Your task to perform on an android device: Is it going to rain tomorrow? Image 0: 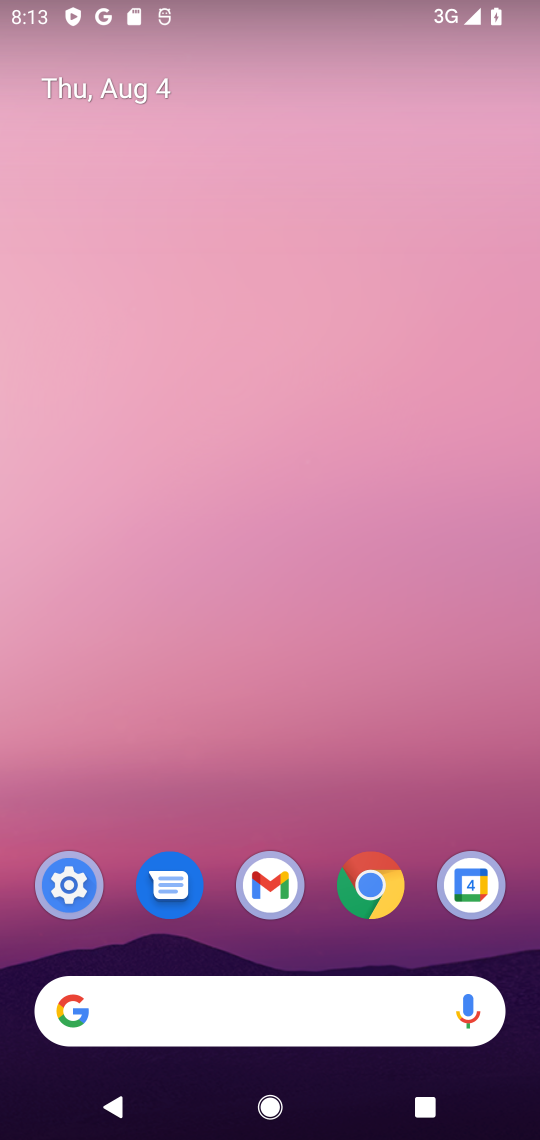
Step 0: press home button
Your task to perform on an android device: Is it going to rain tomorrow? Image 1: 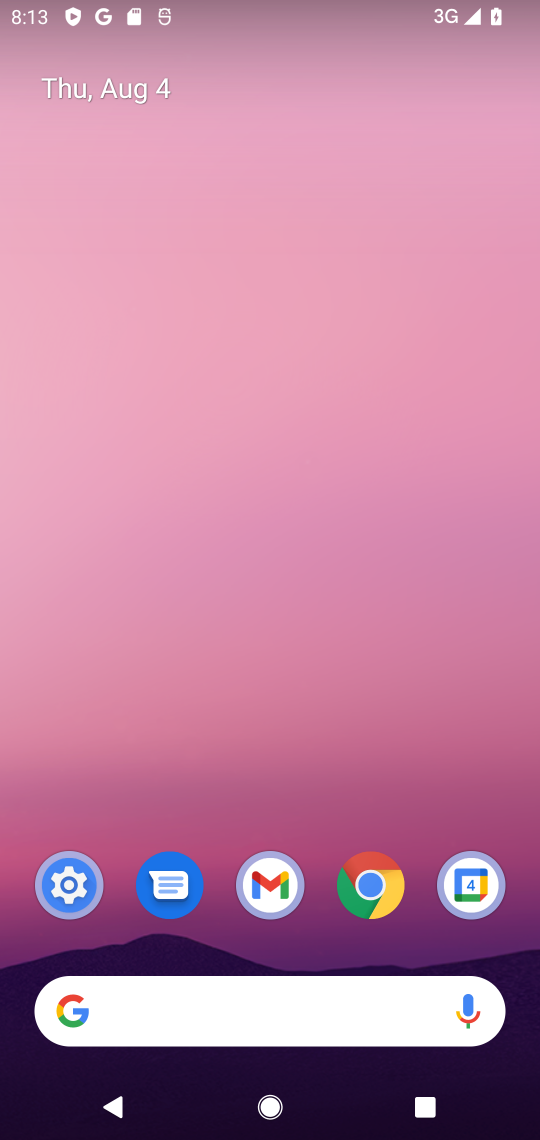
Step 1: press home button
Your task to perform on an android device: Is it going to rain tomorrow? Image 2: 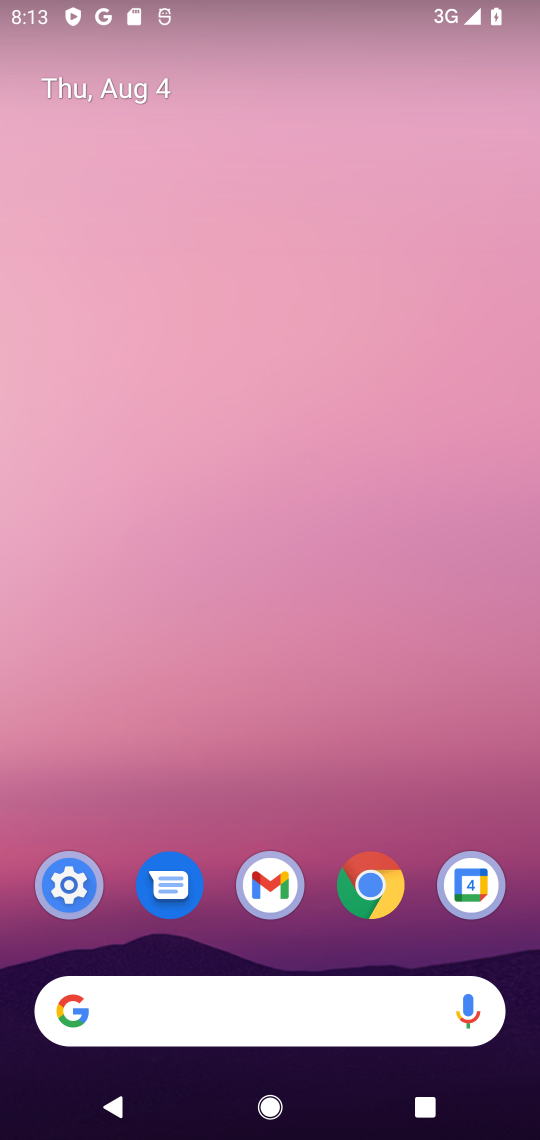
Step 2: press home button
Your task to perform on an android device: Is it going to rain tomorrow? Image 3: 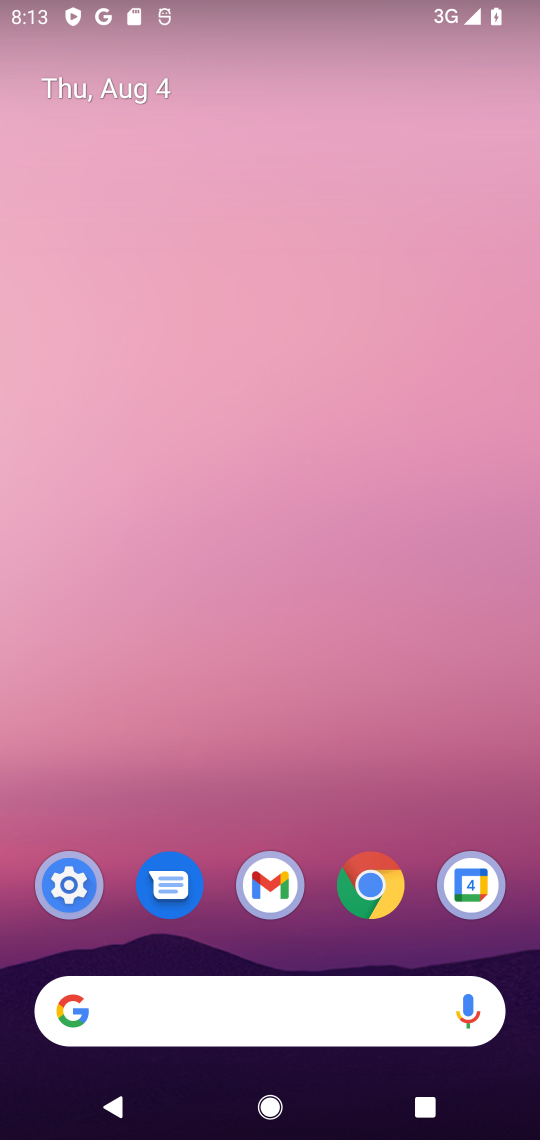
Step 3: press home button
Your task to perform on an android device: Is it going to rain tomorrow? Image 4: 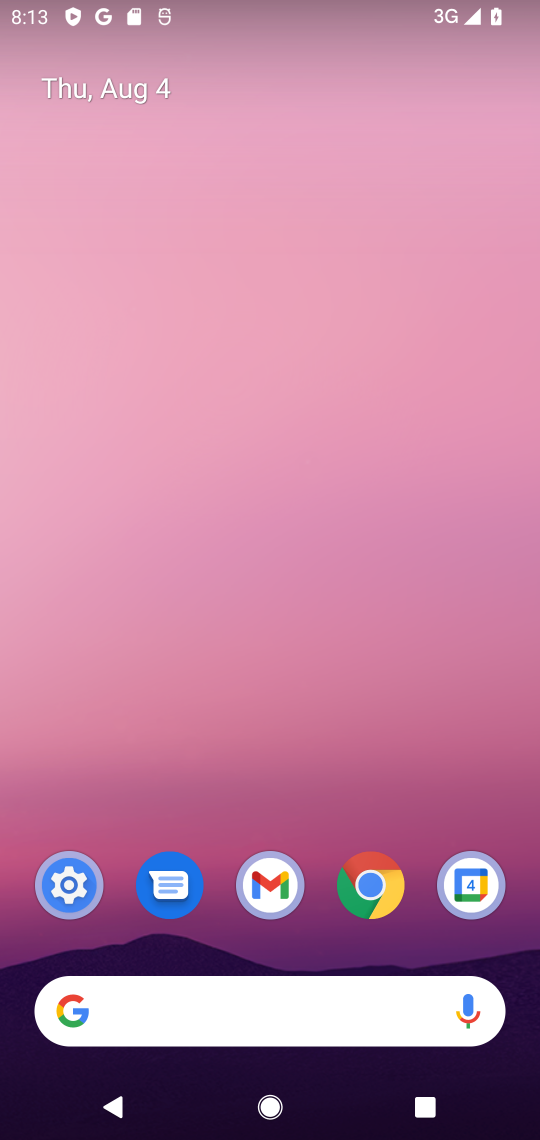
Step 4: press home button
Your task to perform on an android device: Is it going to rain tomorrow? Image 5: 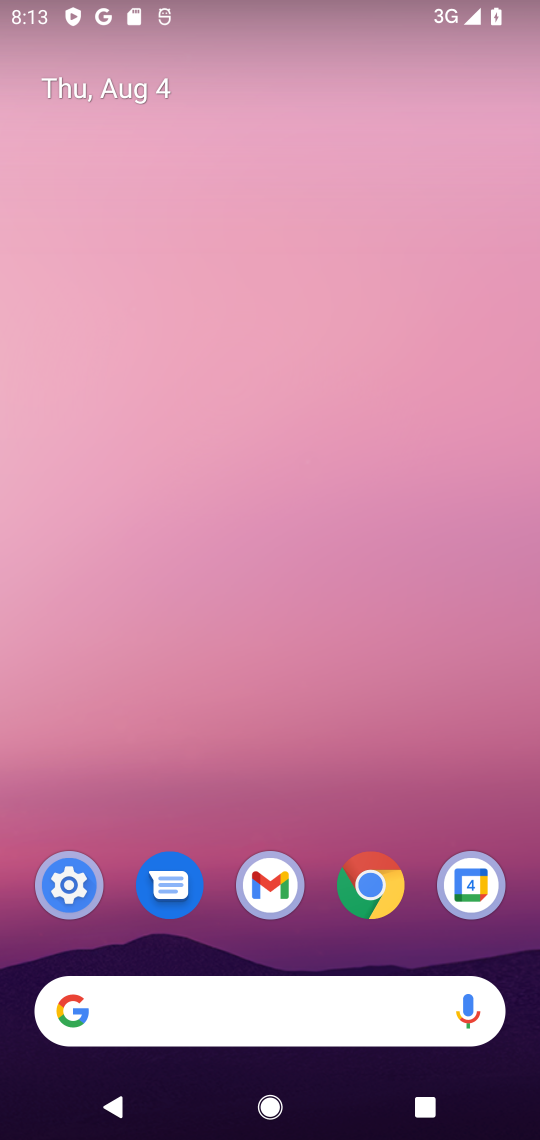
Step 5: press home button
Your task to perform on an android device: Is it going to rain tomorrow? Image 6: 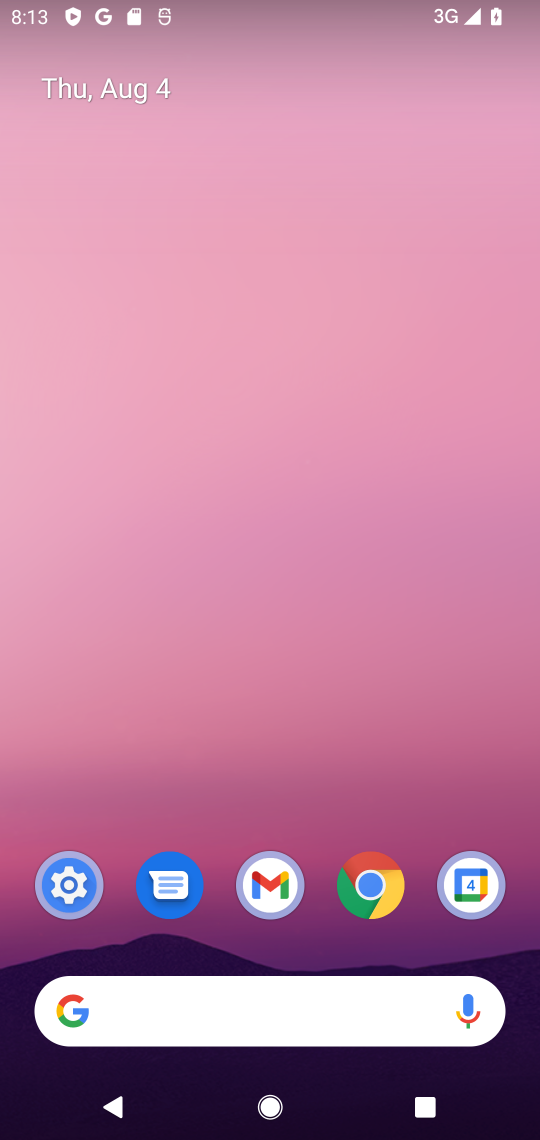
Step 6: click (221, 1019)
Your task to perform on an android device: Is it going to rain tomorrow? Image 7: 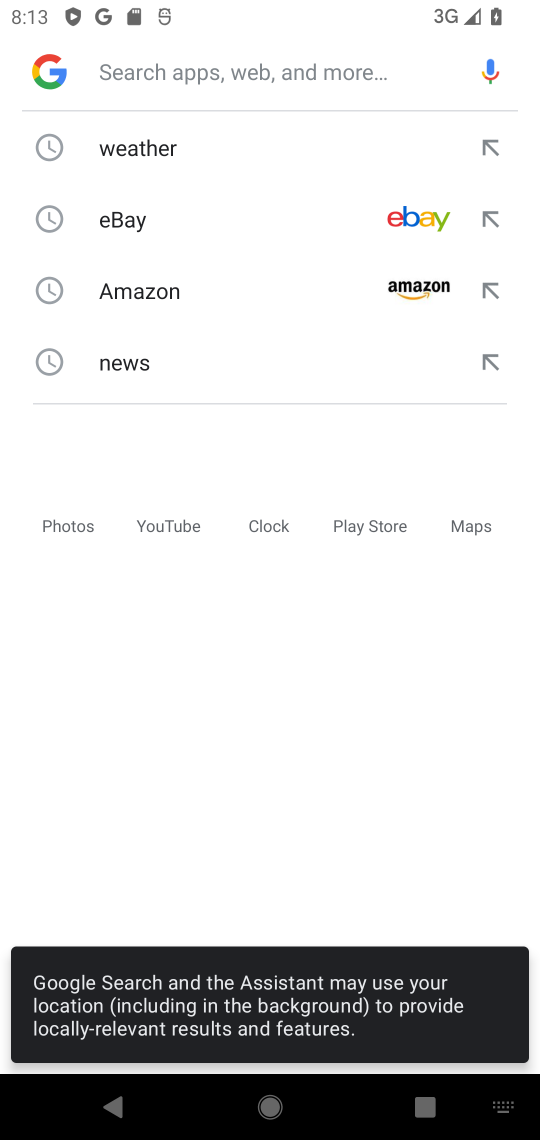
Step 7: click (155, 149)
Your task to perform on an android device: Is it going to rain tomorrow? Image 8: 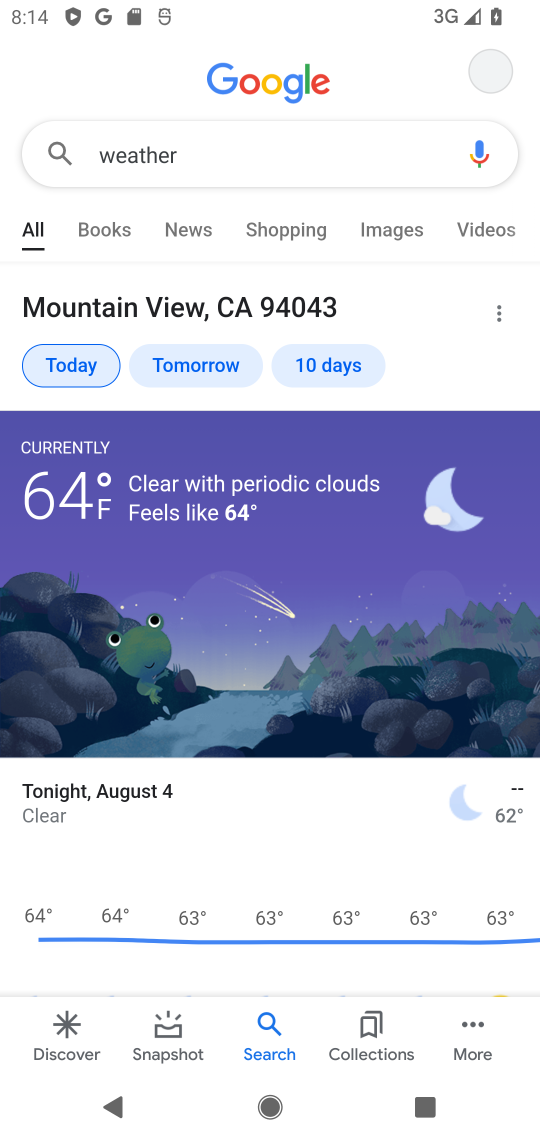
Step 8: click (201, 364)
Your task to perform on an android device: Is it going to rain tomorrow? Image 9: 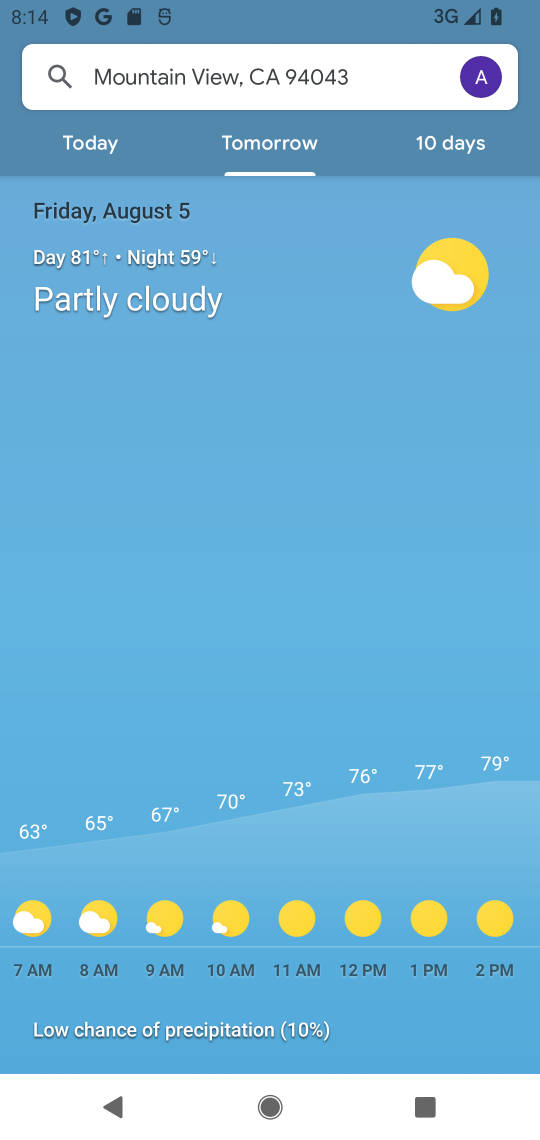
Step 9: task complete